Your task to perform on an android device: Go to wifi settings Image 0: 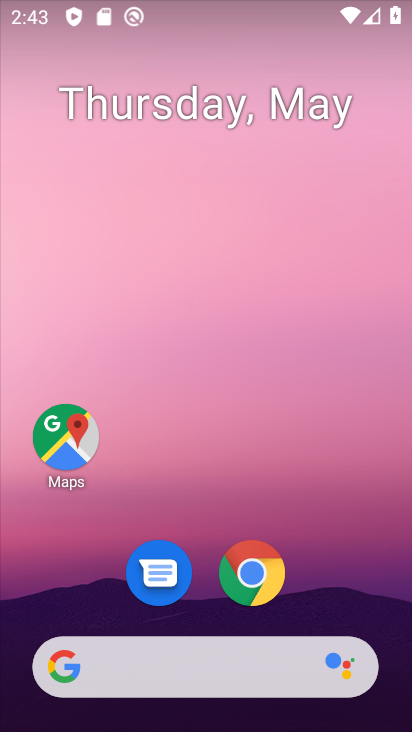
Step 0: drag from (197, 629) to (247, 203)
Your task to perform on an android device: Go to wifi settings Image 1: 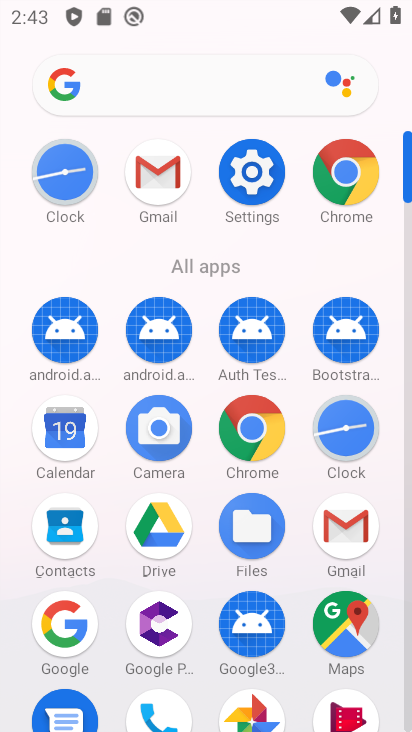
Step 1: click (259, 164)
Your task to perform on an android device: Go to wifi settings Image 2: 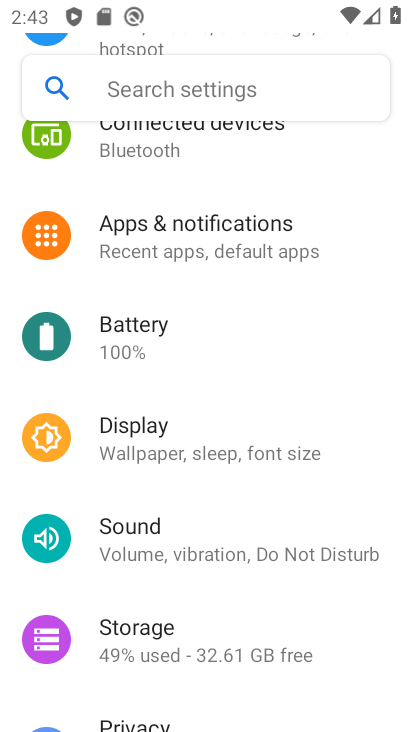
Step 2: drag from (198, 178) to (130, 532)
Your task to perform on an android device: Go to wifi settings Image 3: 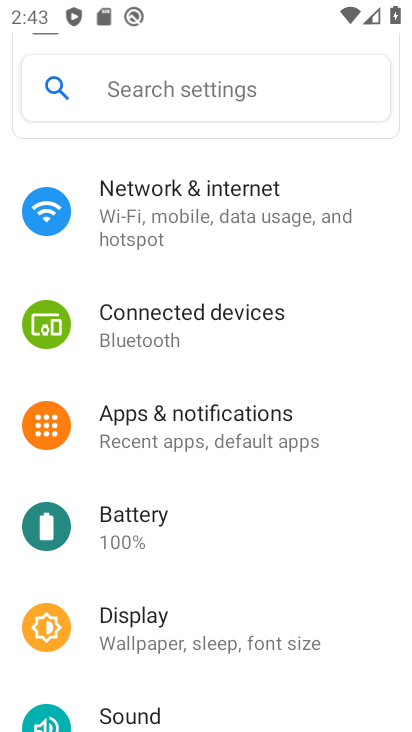
Step 3: click (183, 211)
Your task to perform on an android device: Go to wifi settings Image 4: 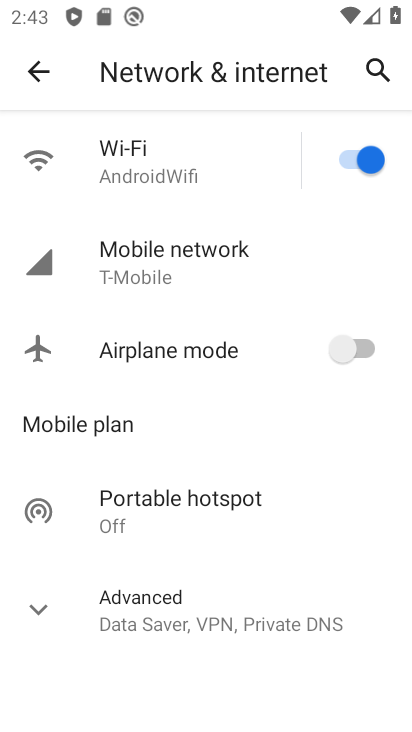
Step 4: click (183, 167)
Your task to perform on an android device: Go to wifi settings Image 5: 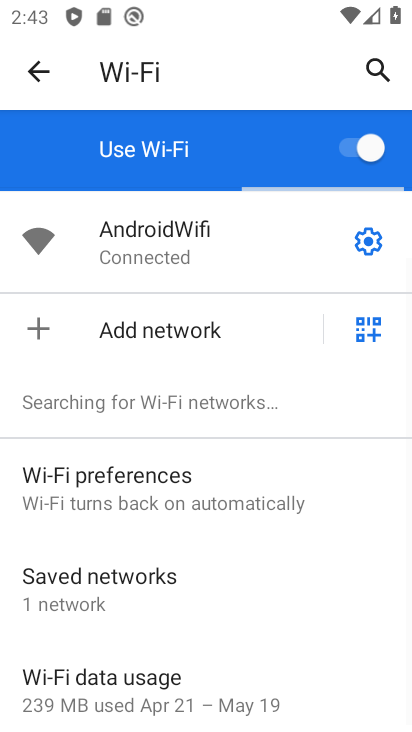
Step 5: click (356, 249)
Your task to perform on an android device: Go to wifi settings Image 6: 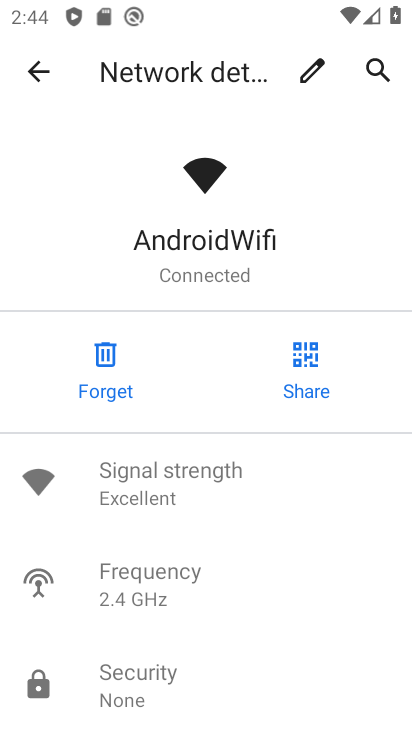
Step 6: task complete